Your task to perform on an android device: toggle data saver in the chrome app Image 0: 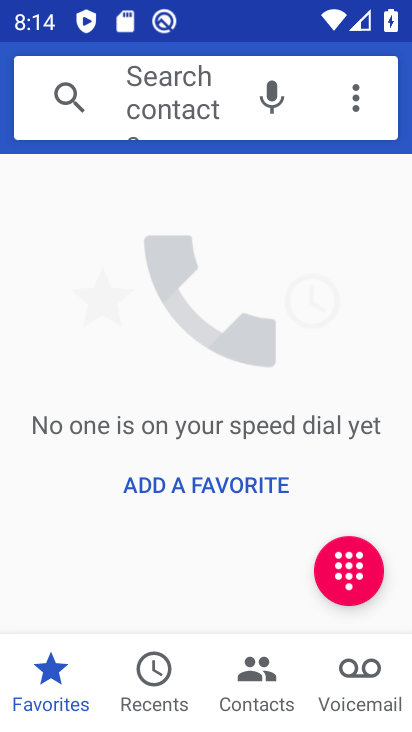
Step 0: press home button
Your task to perform on an android device: toggle data saver in the chrome app Image 1: 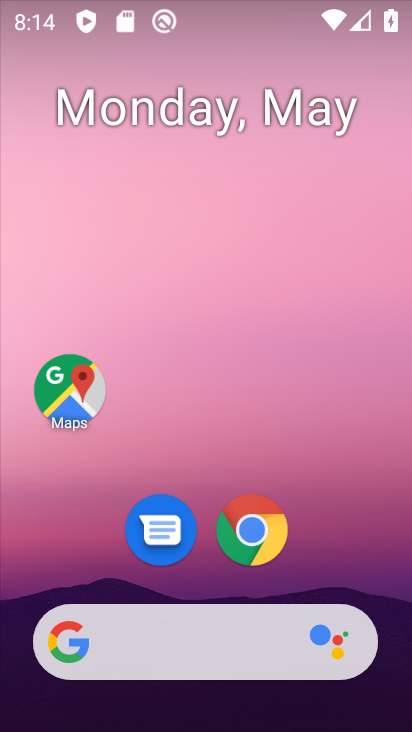
Step 1: click (269, 530)
Your task to perform on an android device: toggle data saver in the chrome app Image 2: 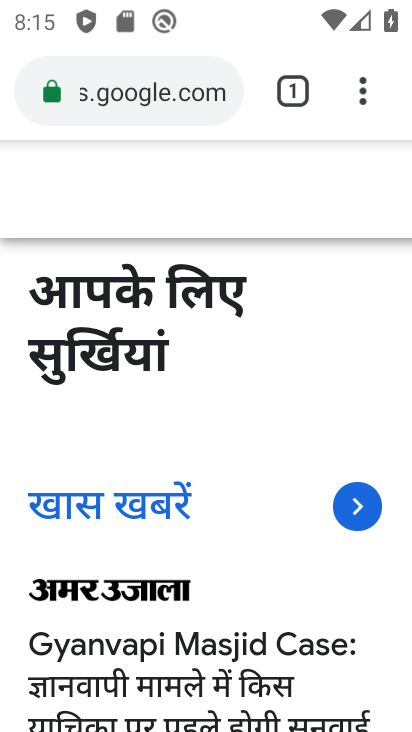
Step 2: click (367, 88)
Your task to perform on an android device: toggle data saver in the chrome app Image 3: 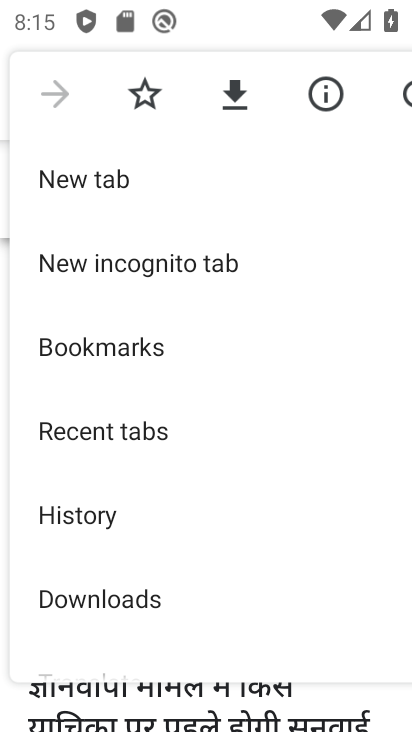
Step 3: drag from (184, 643) to (185, 342)
Your task to perform on an android device: toggle data saver in the chrome app Image 4: 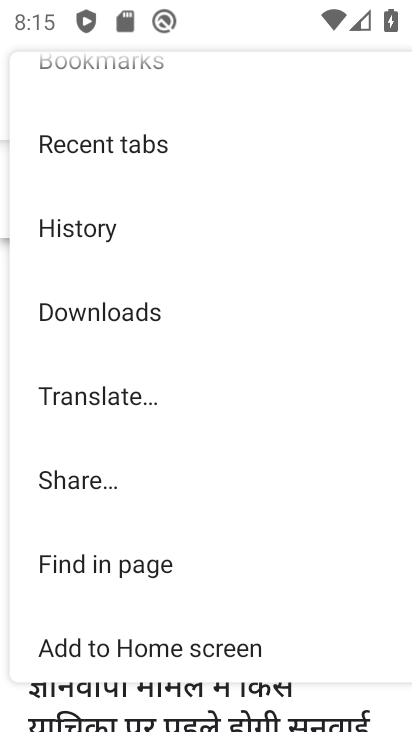
Step 4: drag from (102, 623) to (79, 124)
Your task to perform on an android device: toggle data saver in the chrome app Image 5: 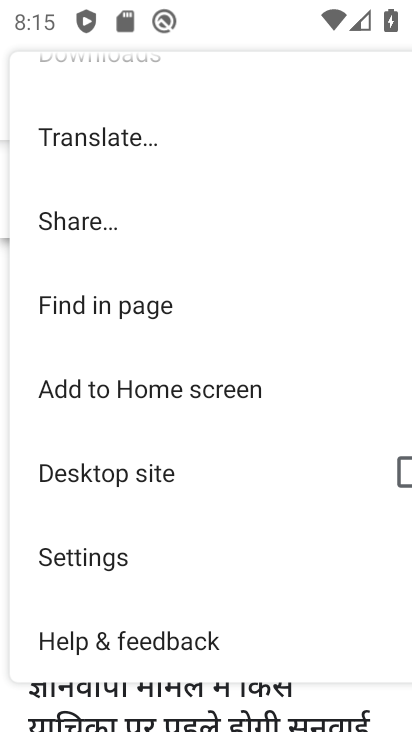
Step 5: click (86, 547)
Your task to perform on an android device: toggle data saver in the chrome app Image 6: 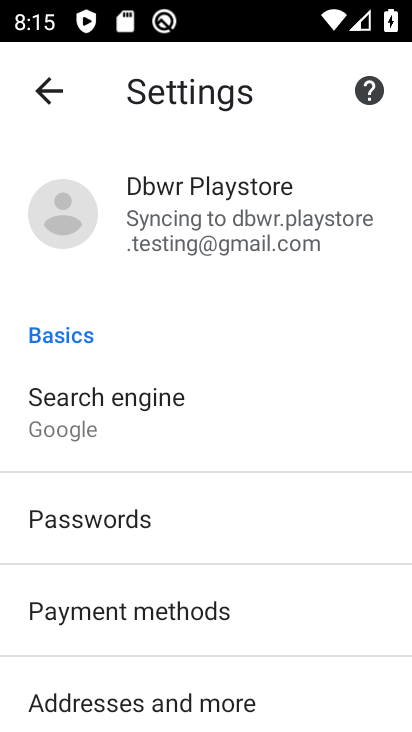
Step 6: drag from (277, 692) to (207, 308)
Your task to perform on an android device: toggle data saver in the chrome app Image 7: 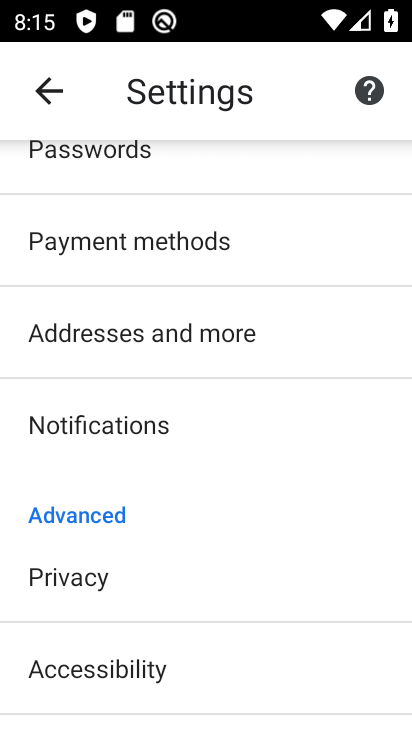
Step 7: drag from (121, 710) to (102, 189)
Your task to perform on an android device: toggle data saver in the chrome app Image 8: 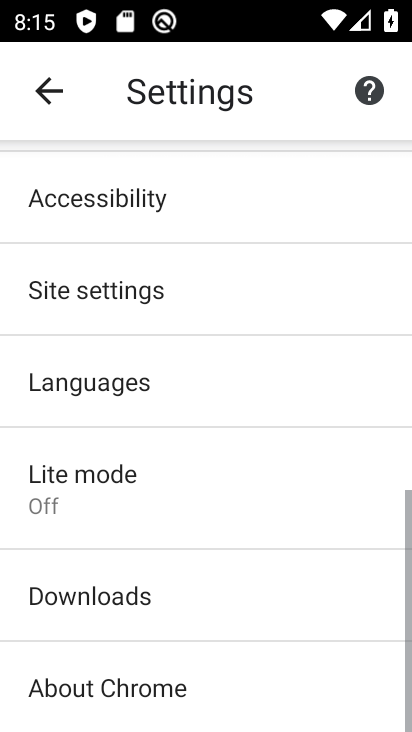
Step 8: drag from (95, 602) to (70, 636)
Your task to perform on an android device: toggle data saver in the chrome app Image 9: 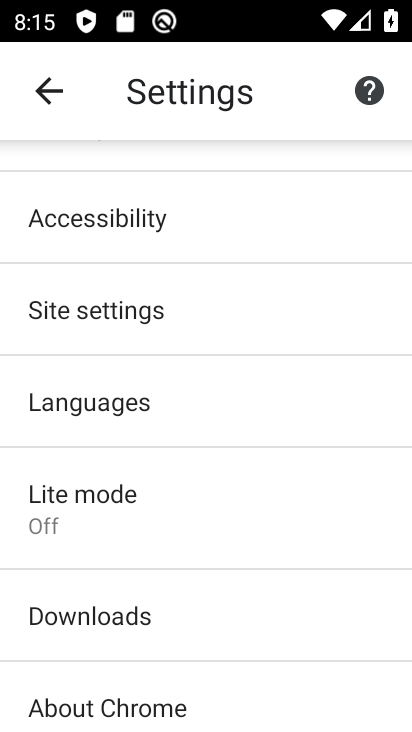
Step 9: click (145, 497)
Your task to perform on an android device: toggle data saver in the chrome app Image 10: 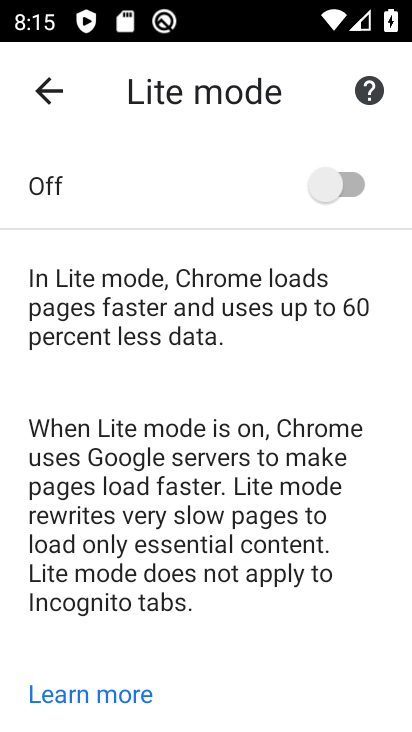
Step 10: click (344, 197)
Your task to perform on an android device: toggle data saver in the chrome app Image 11: 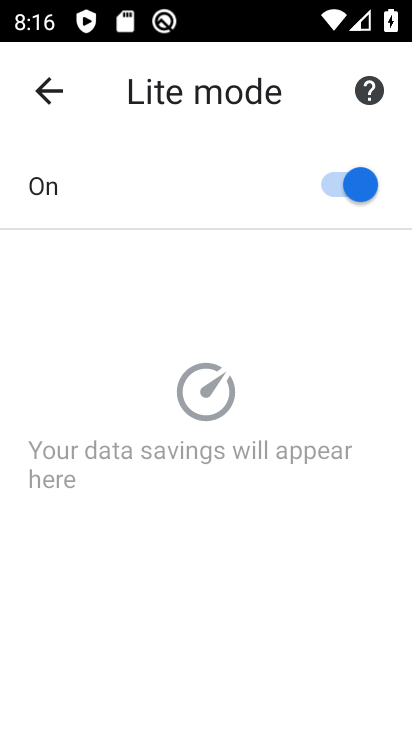
Step 11: task complete